Your task to perform on an android device: toggle improve location accuracy Image 0: 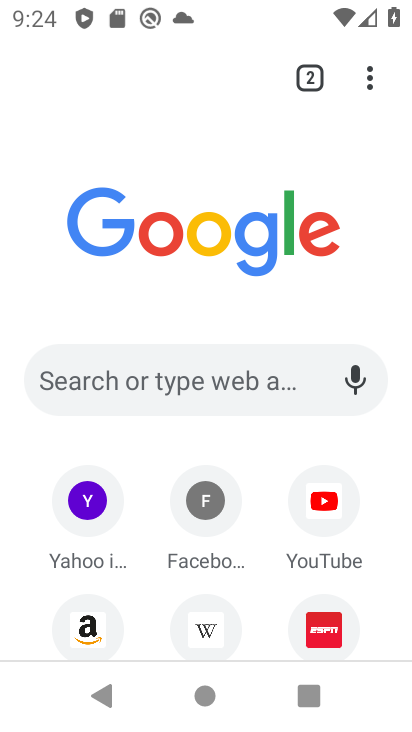
Step 0: press home button
Your task to perform on an android device: toggle improve location accuracy Image 1: 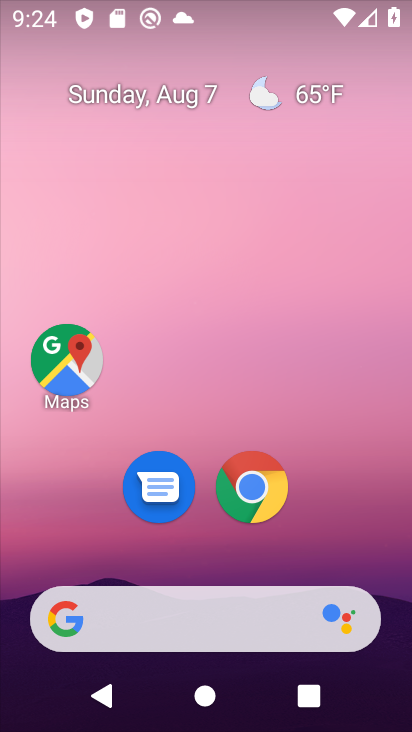
Step 1: drag from (373, 721) to (137, 46)
Your task to perform on an android device: toggle improve location accuracy Image 2: 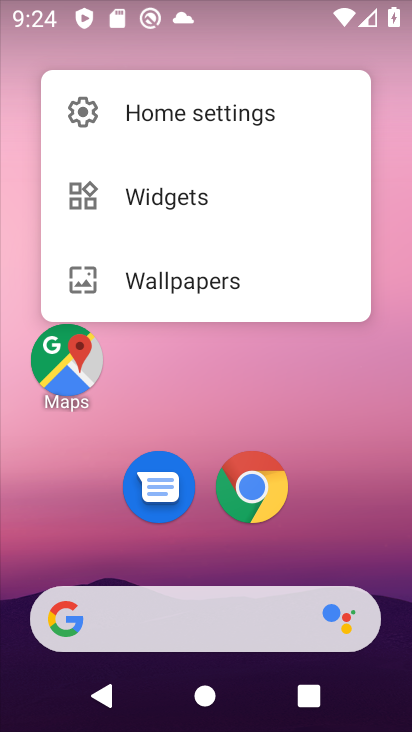
Step 2: press back button
Your task to perform on an android device: toggle improve location accuracy Image 3: 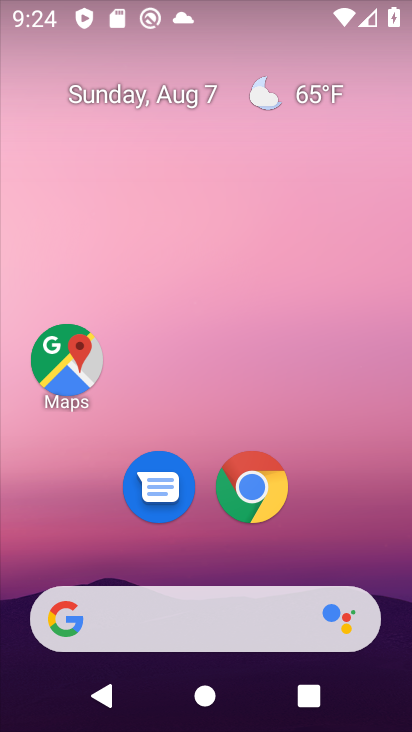
Step 3: drag from (388, 715) to (228, 75)
Your task to perform on an android device: toggle improve location accuracy Image 4: 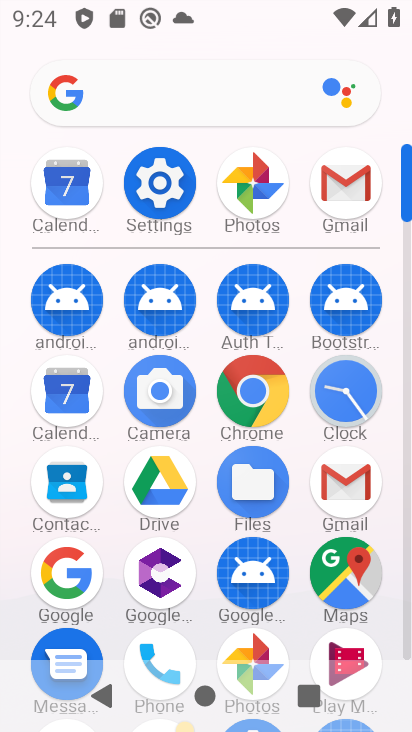
Step 4: click (158, 184)
Your task to perform on an android device: toggle improve location accuracy Image 5: 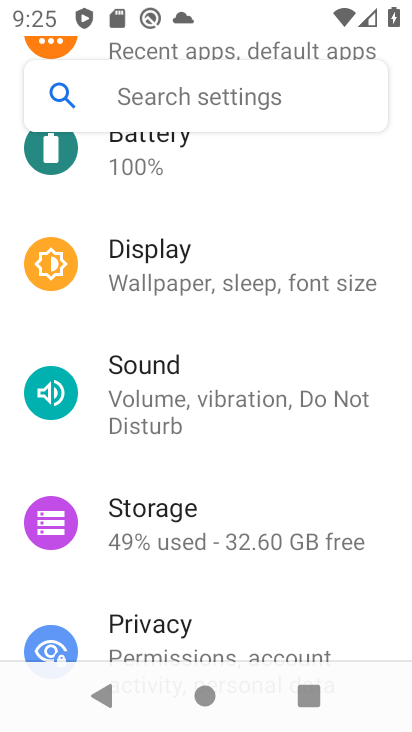
Step 5: drag from (237, 612) to (235, 166)
Your task to perform on an android device: toggle improve location accuracy Image 6: 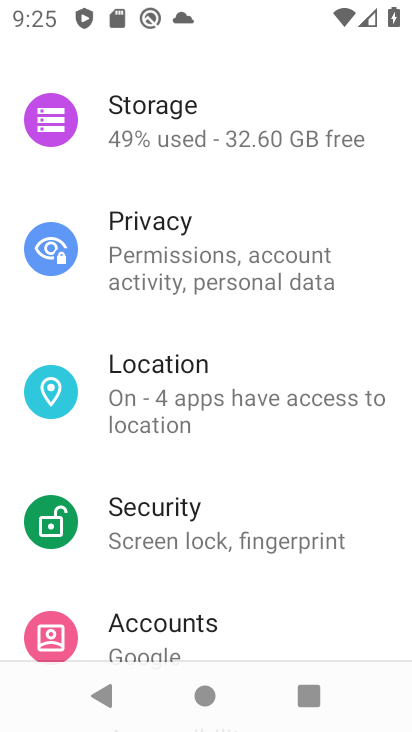
Step 6: click (167, 381)
Your task to perform on an android device: toggle improve location accuracy Image 7: 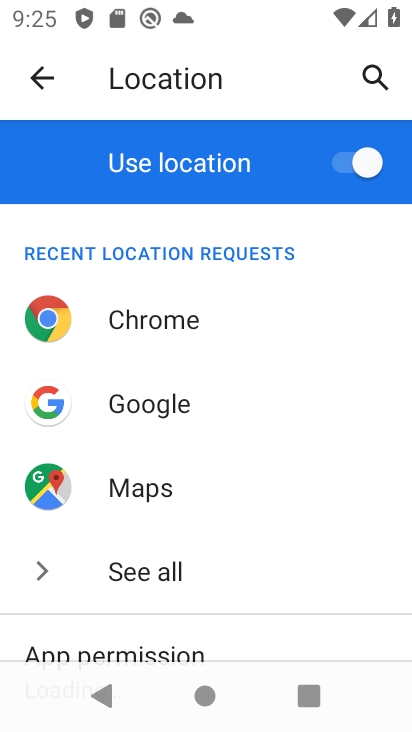
Step 7: drag from (223, 519) to (191, 273)
Your task to perform on an android device: toggle improve location accuracy Image 8: 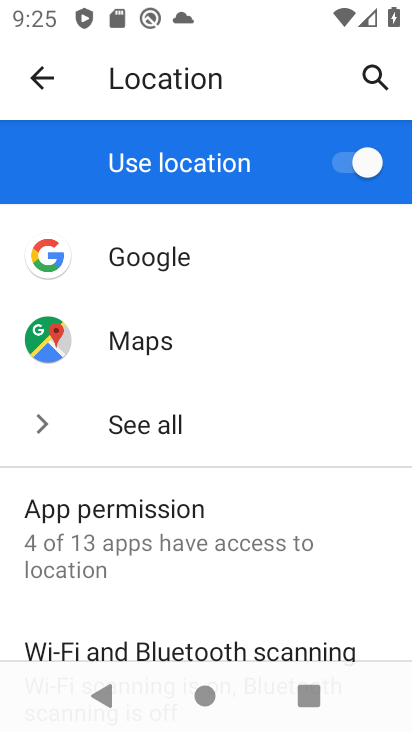
Step 8: drag from (200, 604) to (216, 268)
Your task to perform on an android device: toggle improve location accuracy Image 9: 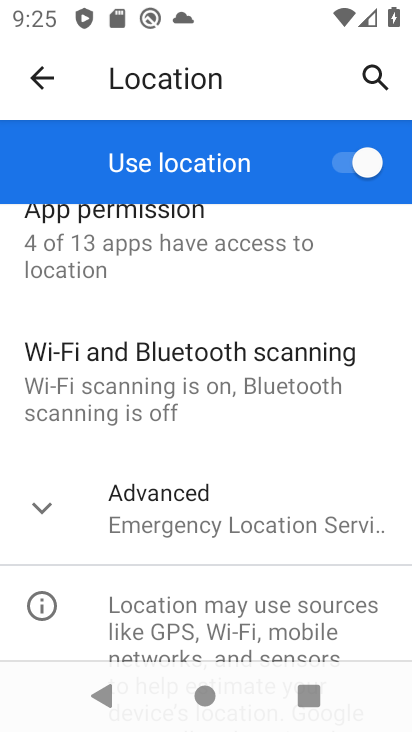
Step 9: click (40, 506)
Your task to perform on an android device: toggle improve location accuracy Image 10: 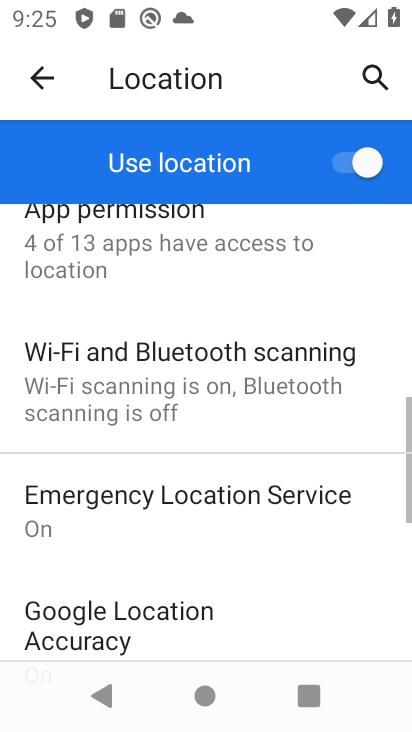
Step 10: drag from (274, 637) to (262, 356)
Your task to perform on an android device: toggle improve location accuracy Image 11: 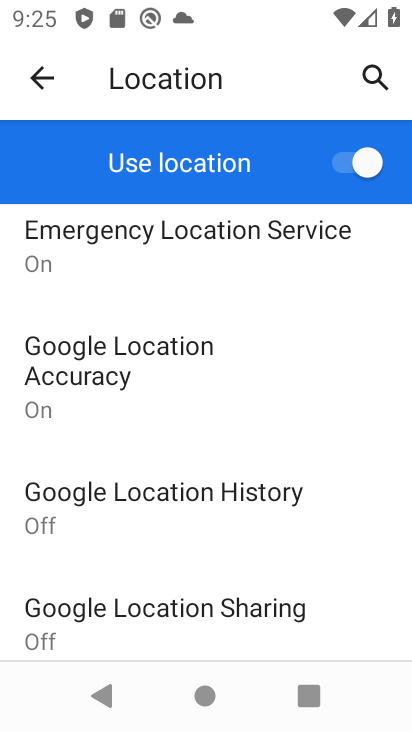
Step 11: click (70, 376)
Your task to perform on an android device: toggle improve location accuracy Image 12: 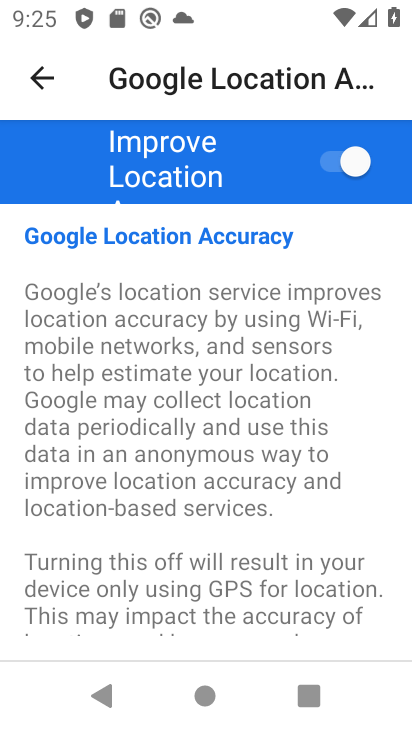
Step 12: click (341, 157)
Your task to perform on an android device: toggle improve location accuracy Image 13: 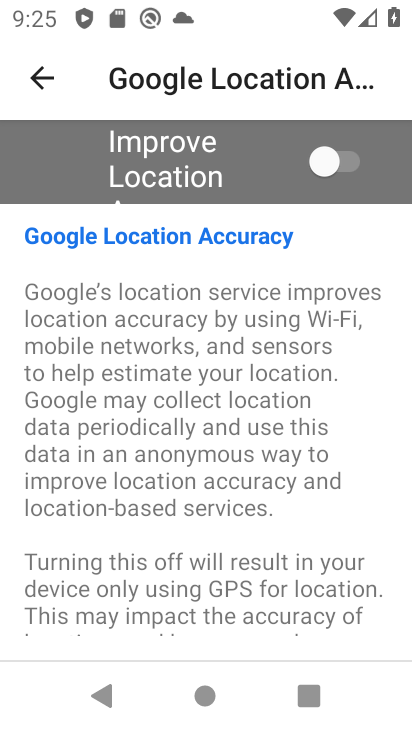
Step 13: task complete